Your task to perform on an android device: set the timer Image 0: 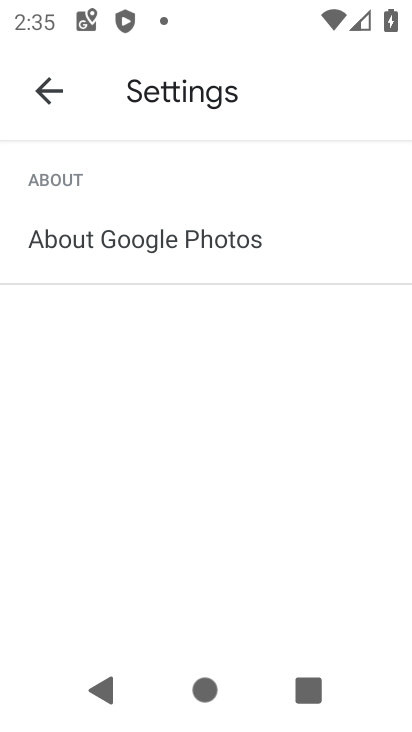
Step 0: press home button
Your task to perform on an android device: set the timer Image 1: 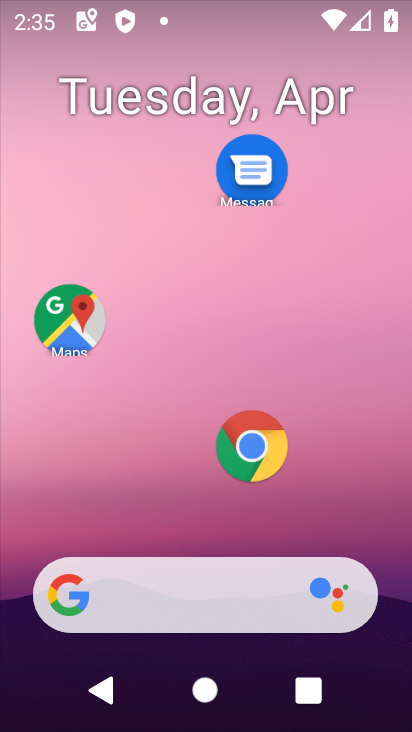
Step 1: drag from (176, 534) to (155, 1)
Your task to perform on an android device: set the timer Image 2: 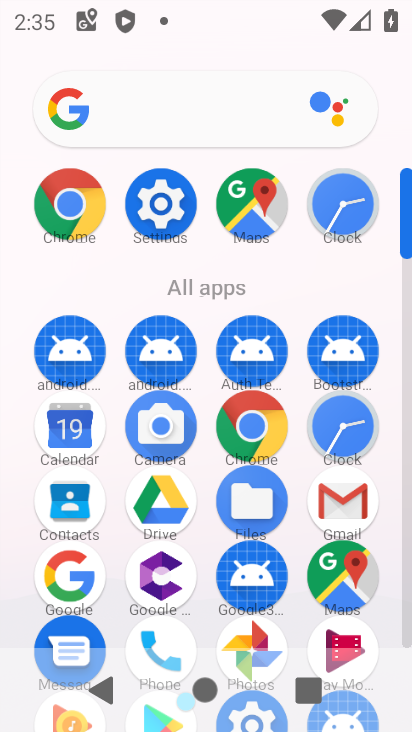
Step 2: click (353, 205)
Your task to perform on an android device: set the timer Image 3: 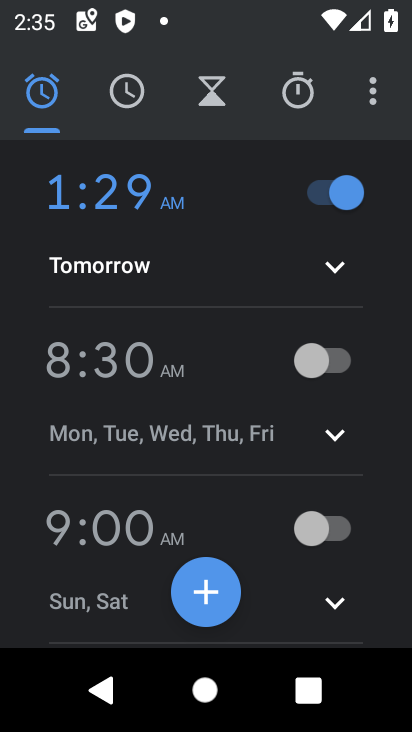
Step 3: click (206, 99)
Your task to perform on an android device: set the timer Image 4: 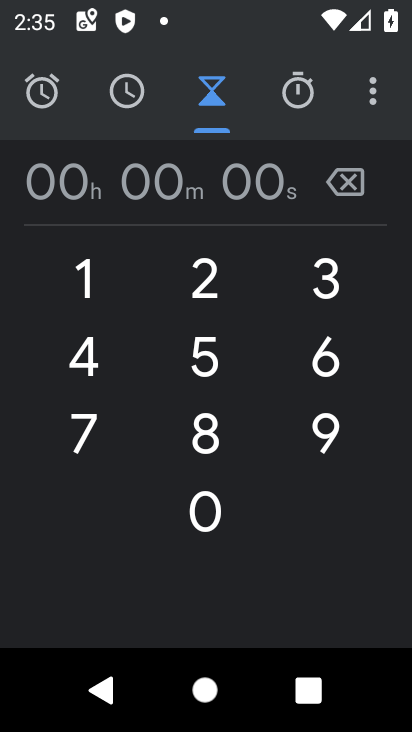
Step 4: click (79, 266)
Your task to perform on an android device: set the timer Image 5: 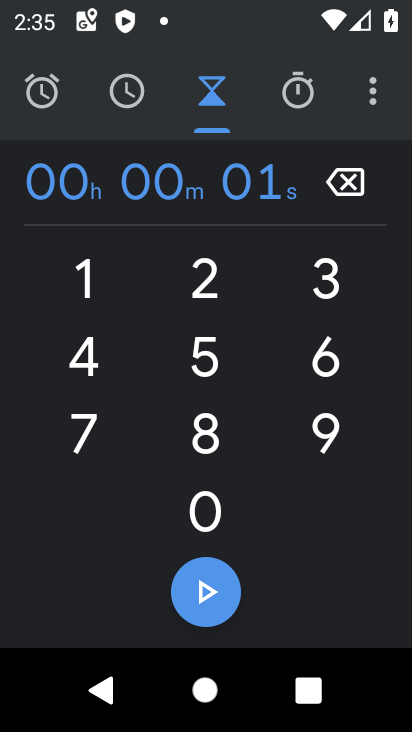
Step 5: click (218, 273)
Your task to perform on an android device: set the timer Image 6: 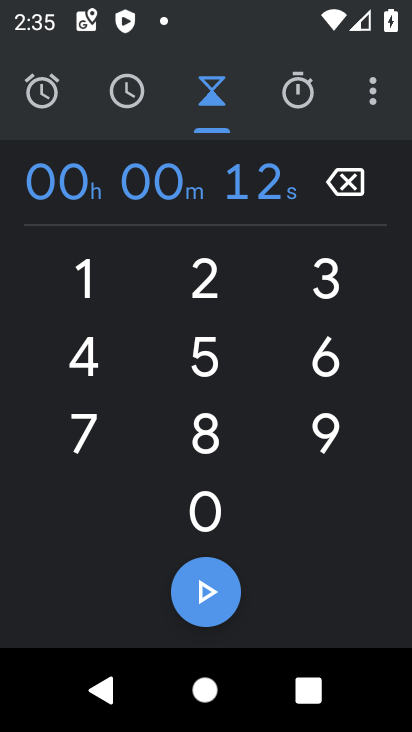
Step 6: click (218, 273)
Your task to perform on an android device: set the timer Image 7: 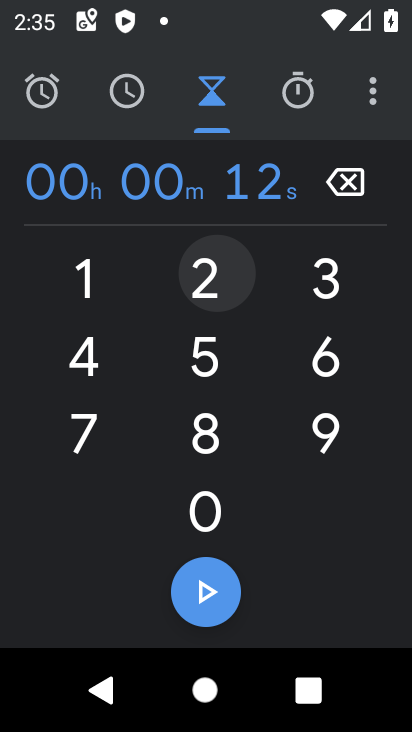
Step 7: click (218, 273)
Your task to perform on an android device: set the timer Image 8: 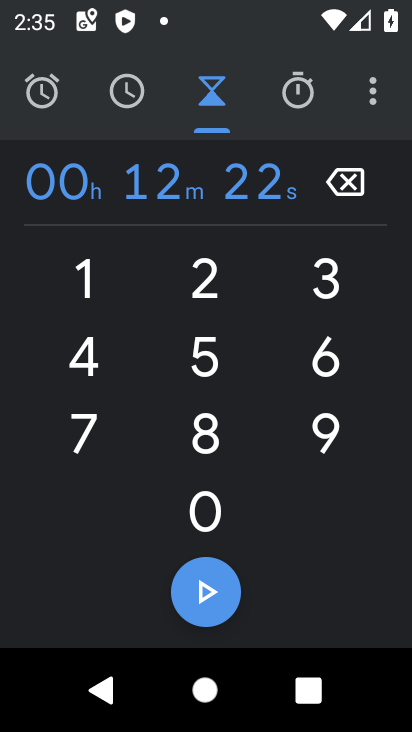
Step 8: click (218, 273)
Your task to perform on an android device: set the timer Image 9: 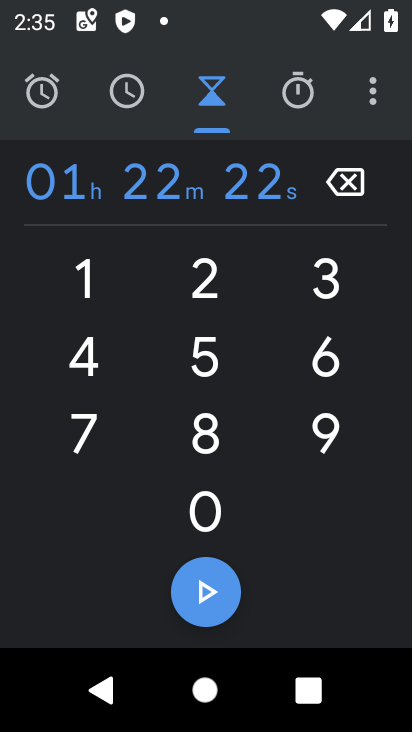
Step 9: click (216, 580)
Your task to perform on an android device: set the timer Image 10: 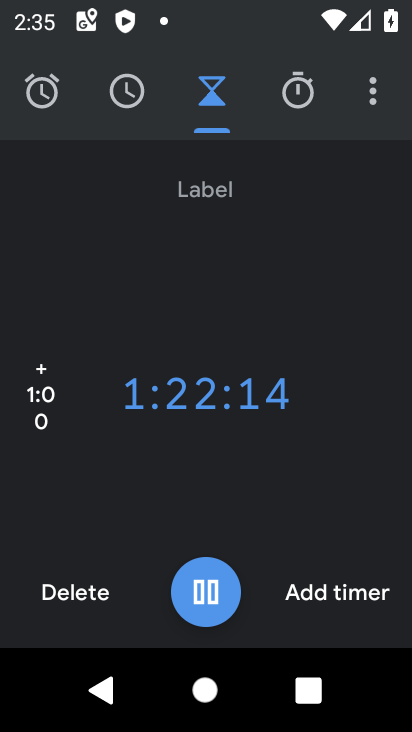
Step 10: task complete